Your task to perform on an android device: Is it going to rain this weekend? Image 0: 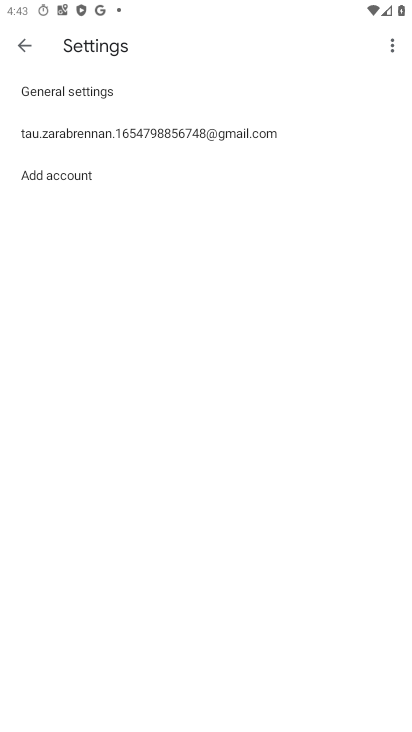
Step 0: press home button
Your task to perform on an android device: Is it going to rain this weekend? Image 1: 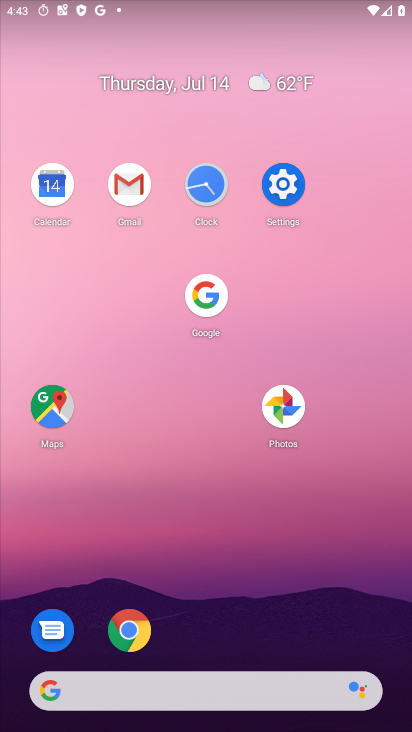
Step 1: click (129, 630)
Your task to perform on an android device: Is it going to rain this weekend? Image 2: 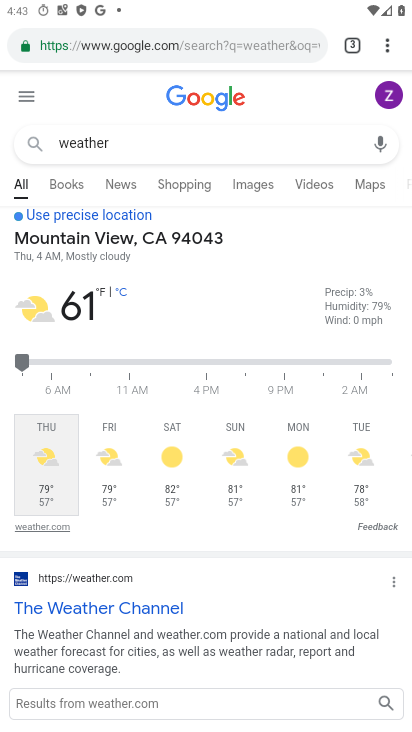
Step 2: click (174, 418)
Your task to perform on an android device: Is it going to rain this weekend? Image 3: 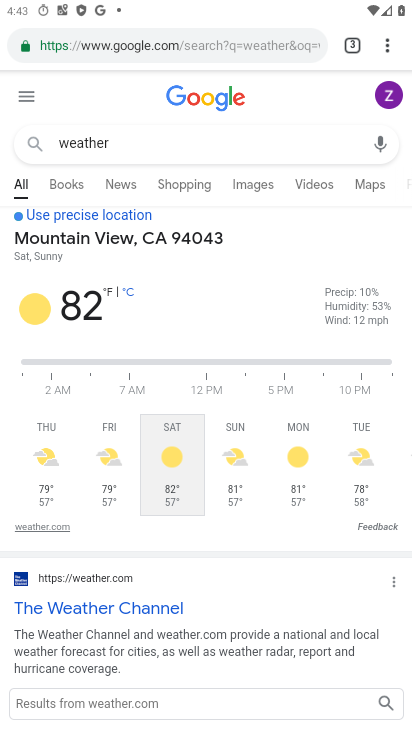
Step 3: task complete